Your task to perform on an android device: Show me the alarms in the clock app Image 0: 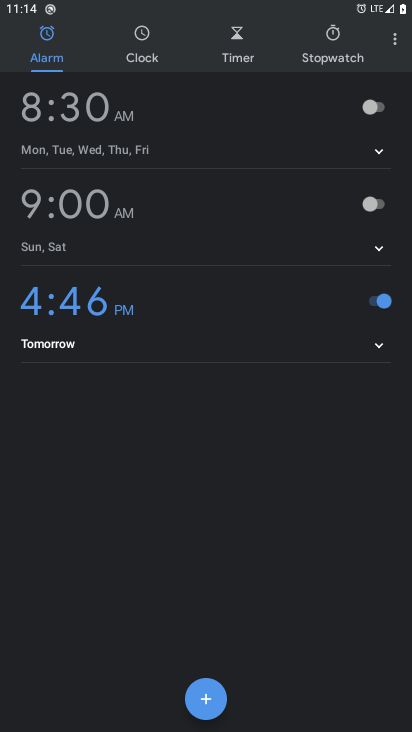
Step 0: press home button
Your task to perform on an android device: Show me the alarms in the clock app Image 1: 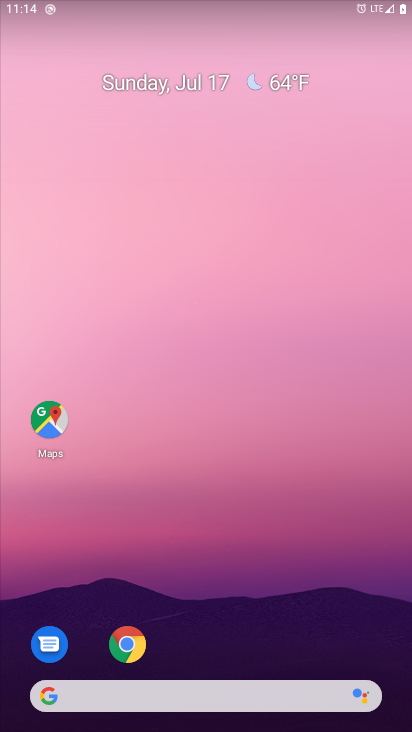
Step 1: drag from (245, 605) to (276, 23)
Your task to perform on an android device: Show me the alarms in the clock app Image 2: 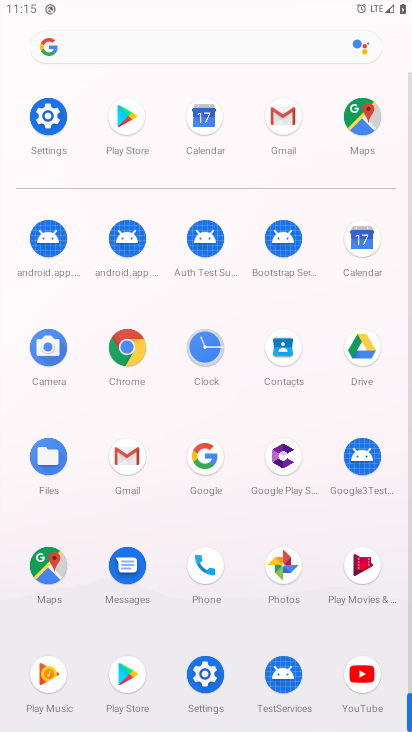
Step 2: click (206, 342)
Your task to perform on an android device: Show me the alarms in the clock app Image 3: 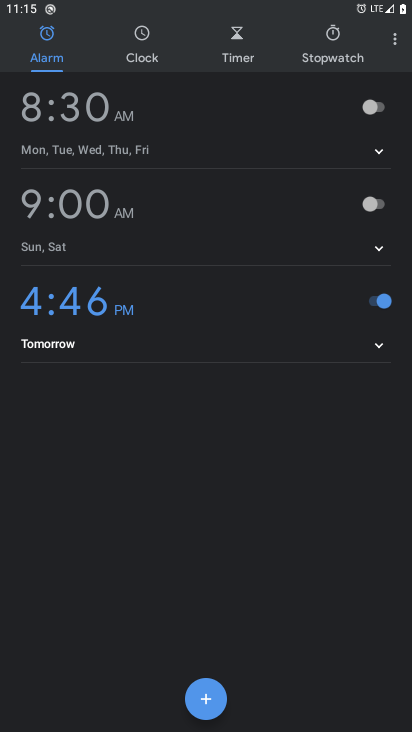
Step 3: task complete